Your task to perform on an android device: turn off javascript in the chrome app Image 0: 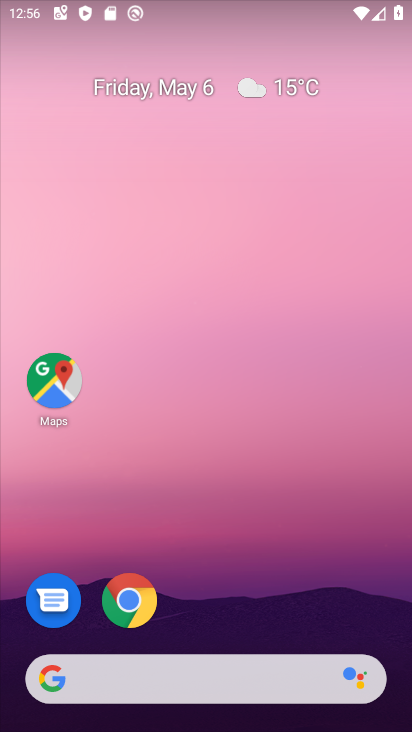
Step 0: drag from (345, 629) to (328, 93)
Your task to perform on an android device: turn off javascript in the chrome app Image 1: 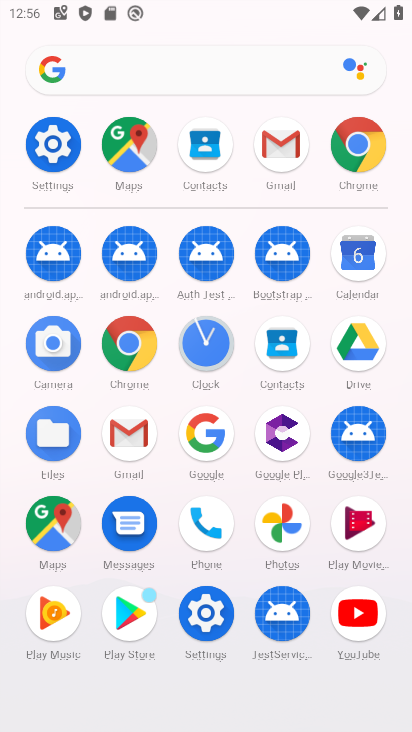
Step 1: click (368, 153)
Your task to perform on an android device: turn off javascript in the chrome app Image 2: 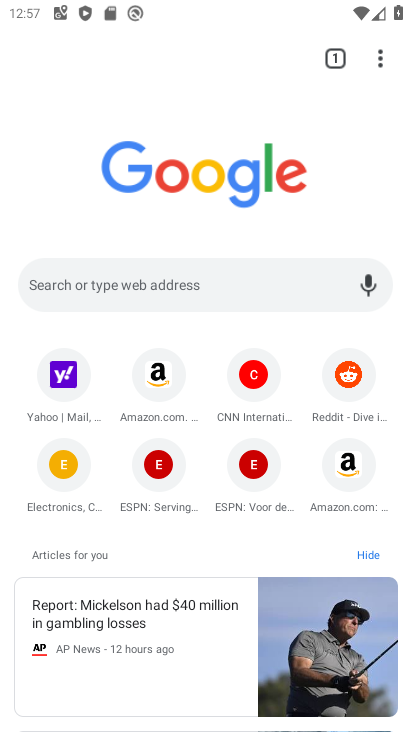
Step 2: click (383, 54)
Your task to perform on an android device: turn off javascript in the chrome app Image 3: 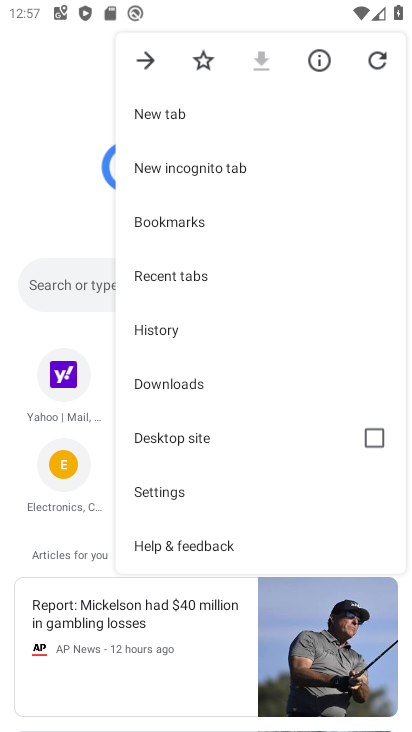
Step 3: click (208, 491)
Your task to perform on an android device: turn off javascript in the chrome app Image 4: 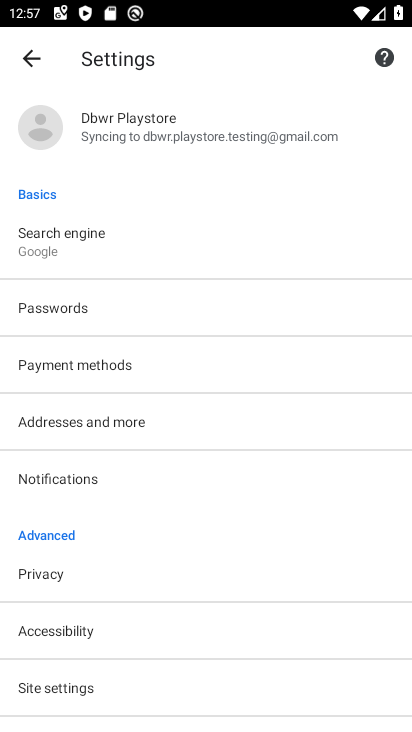
Step 4: click (144, 683)
Your task to perform on an android device: turn off javascript in the chrome app Image 5: 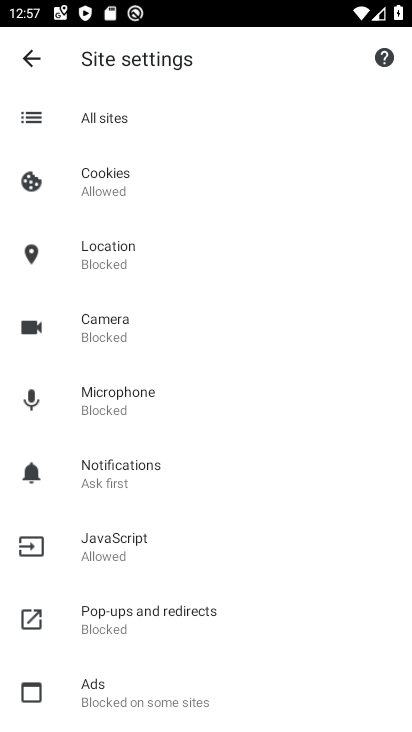
Step 5: click (138, 562)
Your task to perform on an android device: turn off javascript in the chrome app Image 6: 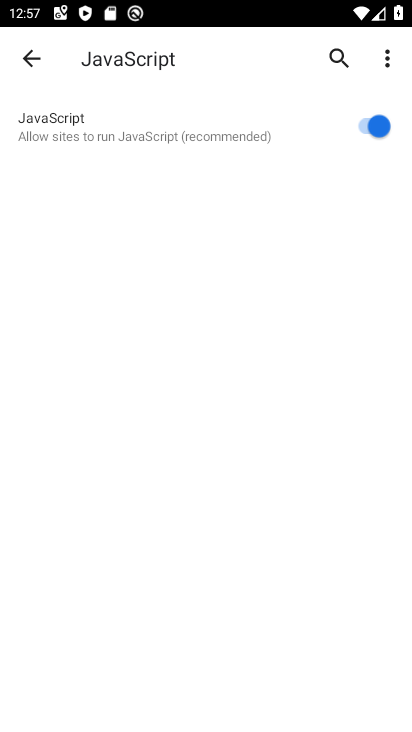
Step 6: click (368, 130)
Your task to perform on an android device: turn off javascript in the chrome app Image 7: 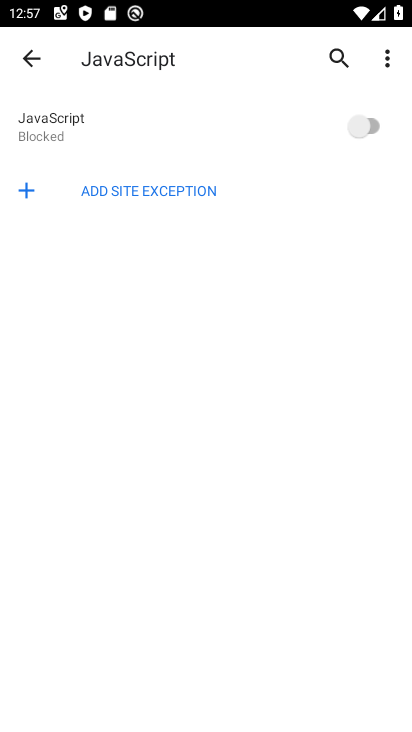
Step 7: task complete